Your task to perform on an android device: uninstall "Microsoft Outlook" Image 0: 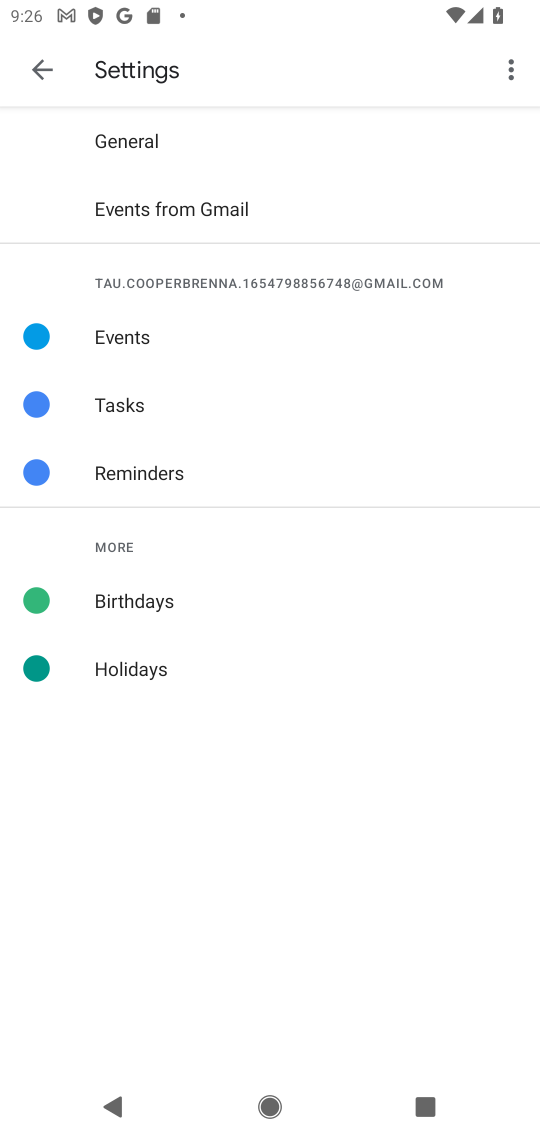
Step 0: press home button
Your task to perform on an android device: uninstall "Microsoft Outlook" Image 1: 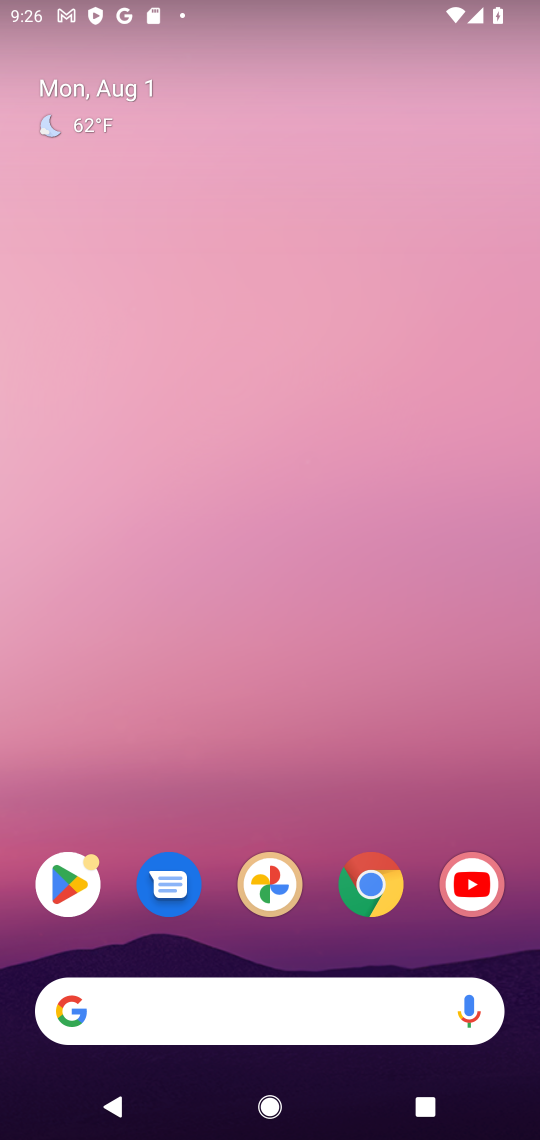
Step 1: click (53, 887)
Your task to perform on an android device: uninstall "Microsoft Outlook" Image 2: 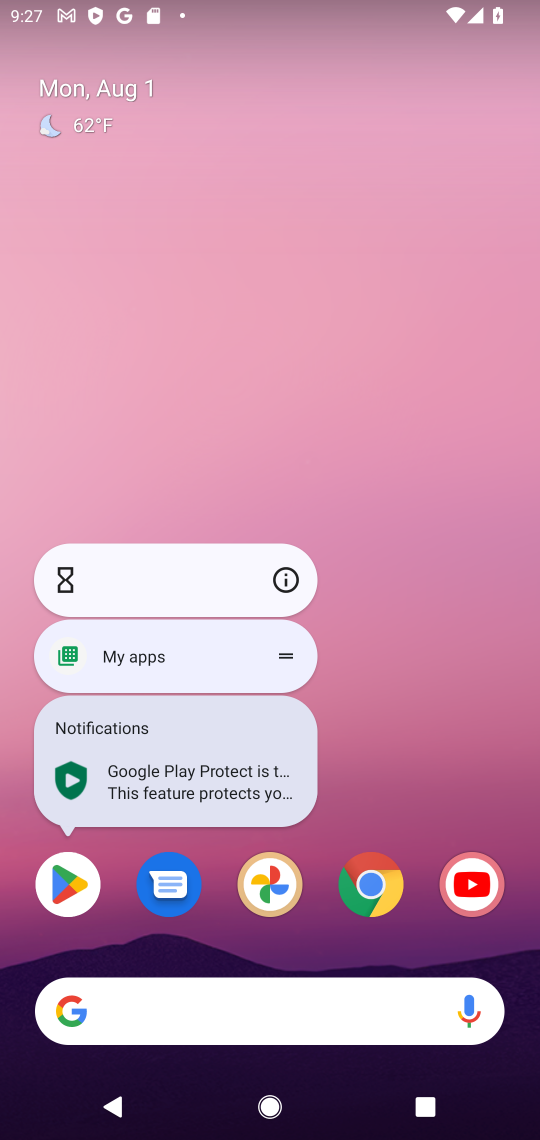
Step 2: click (53, 887)
Your task to perform on an android device: uninstall "Microsoft Outlook" Image 3: 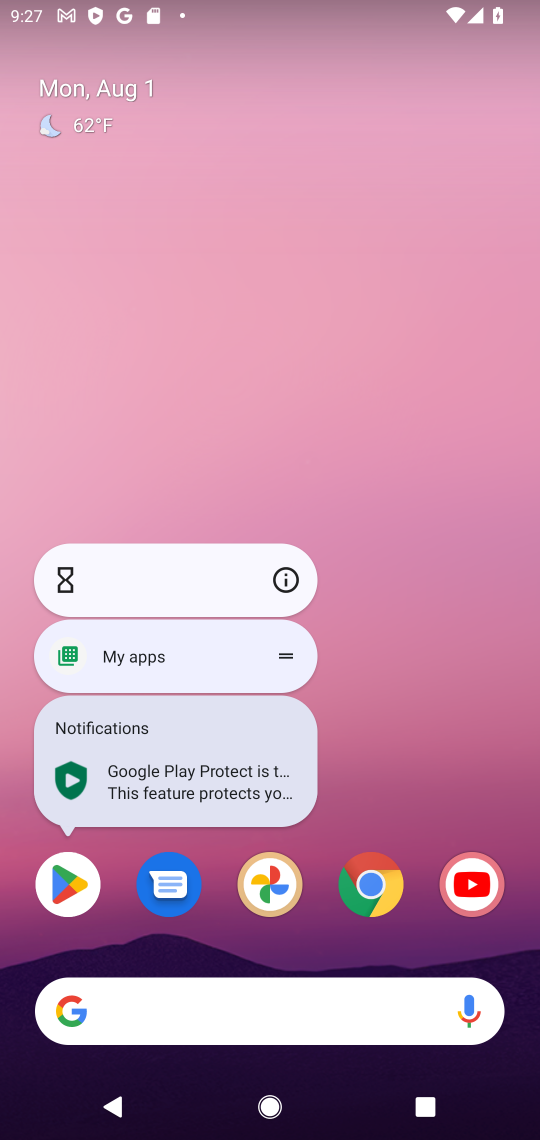
Step 3: click (53, 887)
Your task to perform on an android device: uninstall "Microsoft Outlook" Image 4: 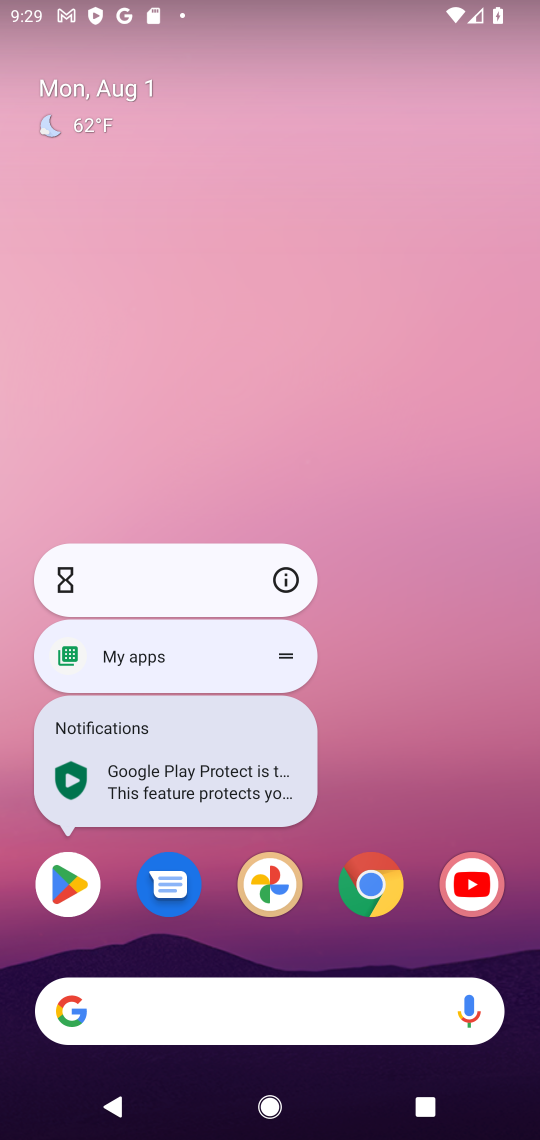
Step 4: click (71, 885)
Your task to perform on an android device: uninstall "Microsoft Outlook" Image 5: 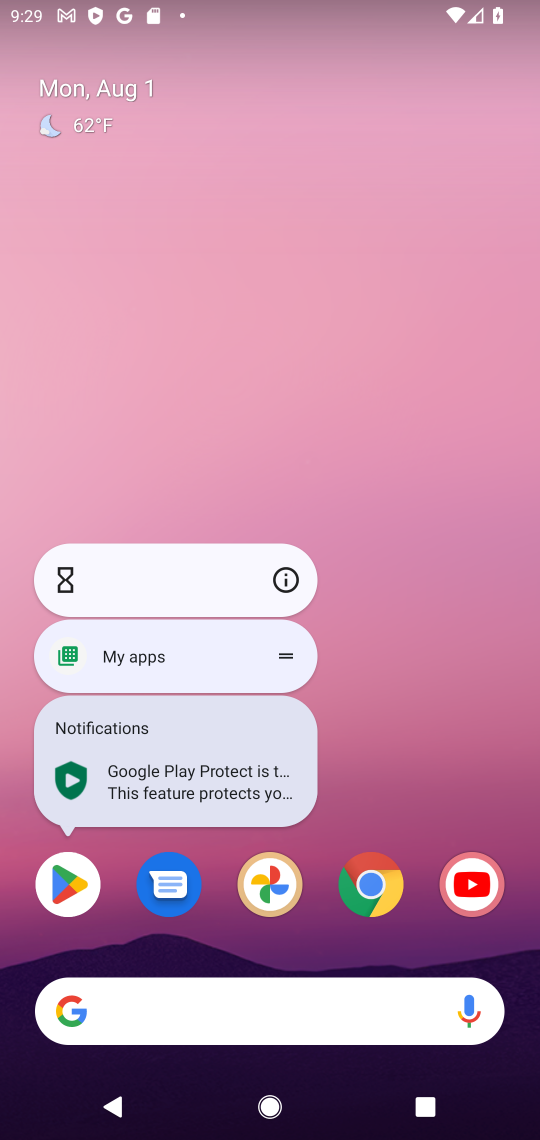
Step 5: click (71, 885)
Your task to perform on an android device: uninstall "Microsoft Outlook" Image 6: 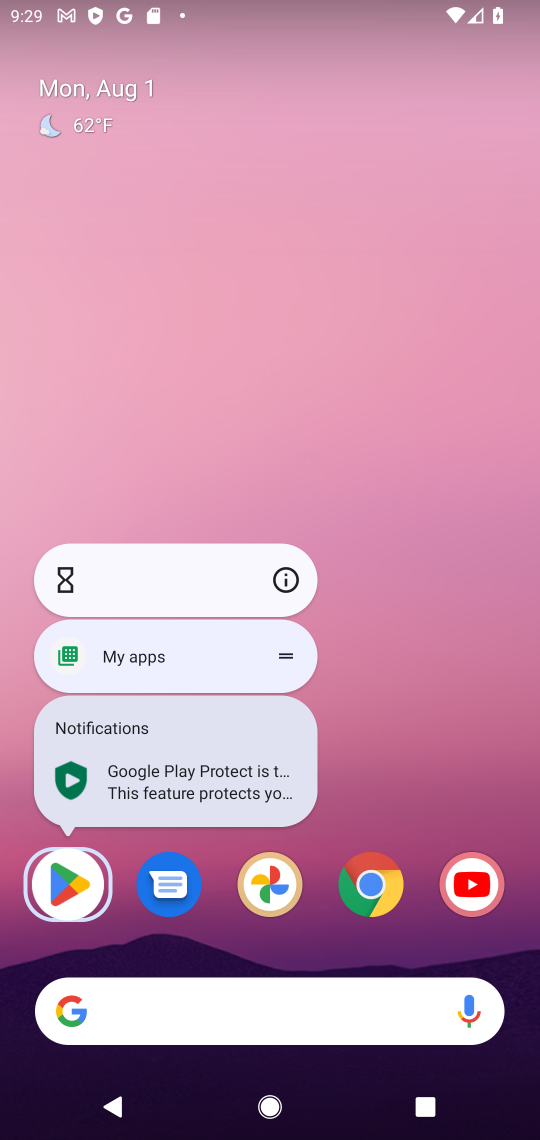
Step 6: click (71, 885)
Your task to perform on an android device: uninstall "Microsoft Outlook" Image 7: 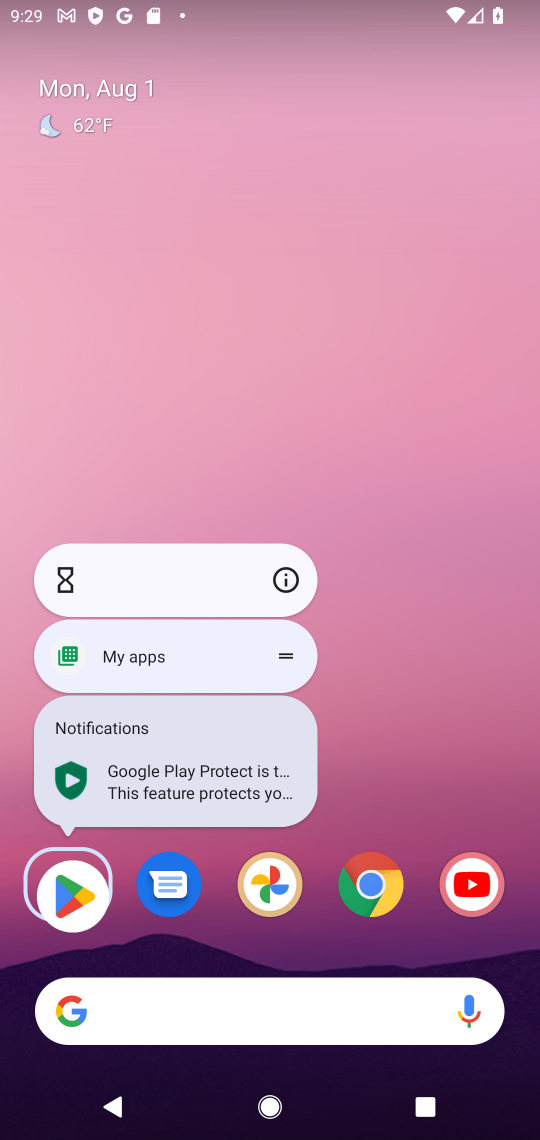
Step 7: click (76, 897)
Your task to perform on an android device: uninstall "Microsoft Outlook" Image 8: 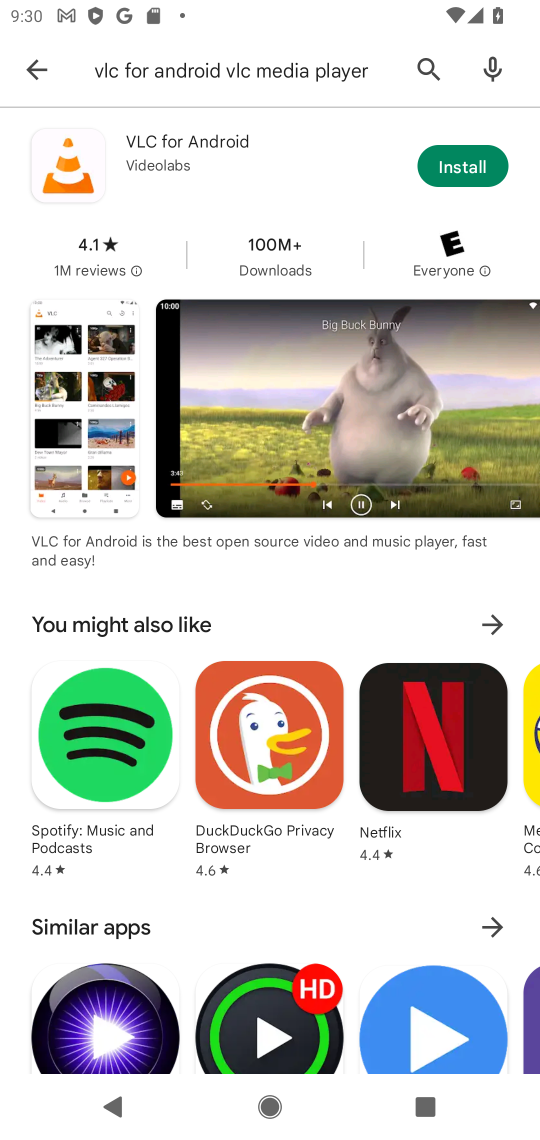
Step 8: click (430, 68)
Your task to perform on an android device: uninstall "Microsoft Outlook" Image 9: 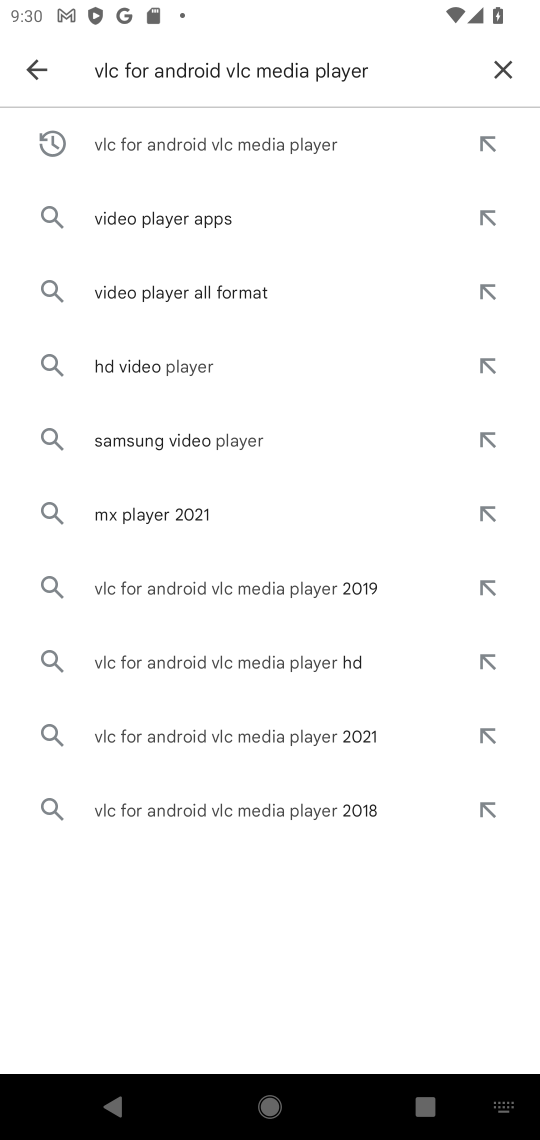
Step 9: click (533, 57)
Your task to perform on an android device: uninstall "Microsoft Outlook" Image 10: 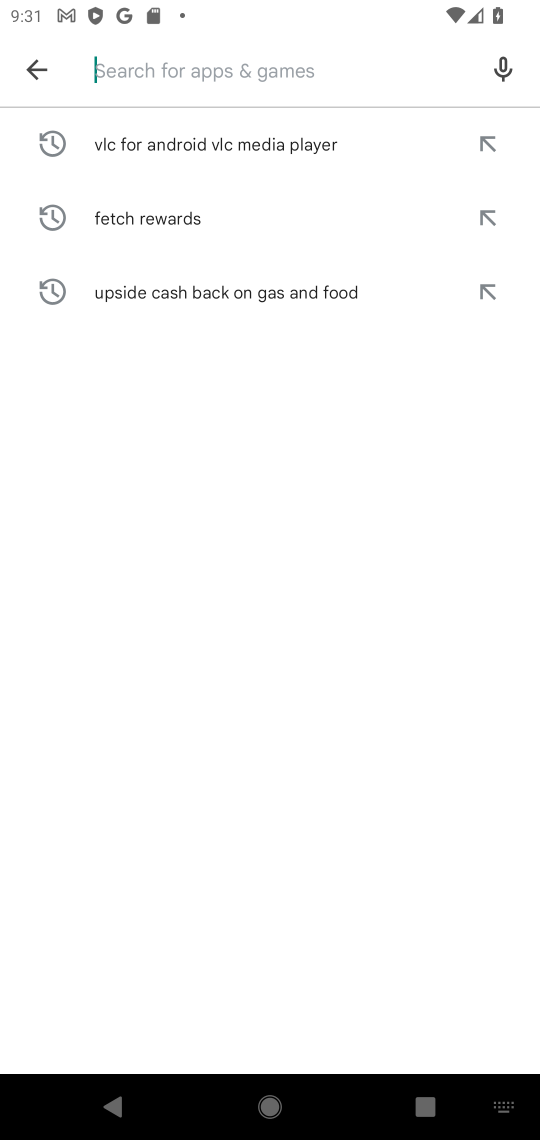
Step 10: type "microsoft "
Your task to perform on an android device: uninstall "Microsoft Outlook" Image 11: 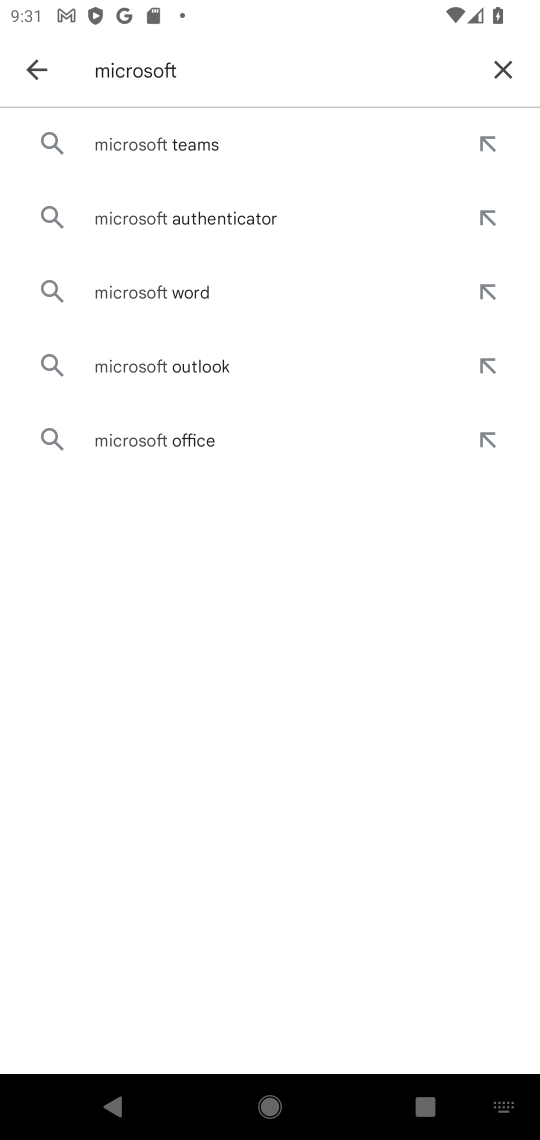
Step 11: click (218, 366)
Your task to perform on an android device: uninstall "Microsoft Outlook" Image 12: 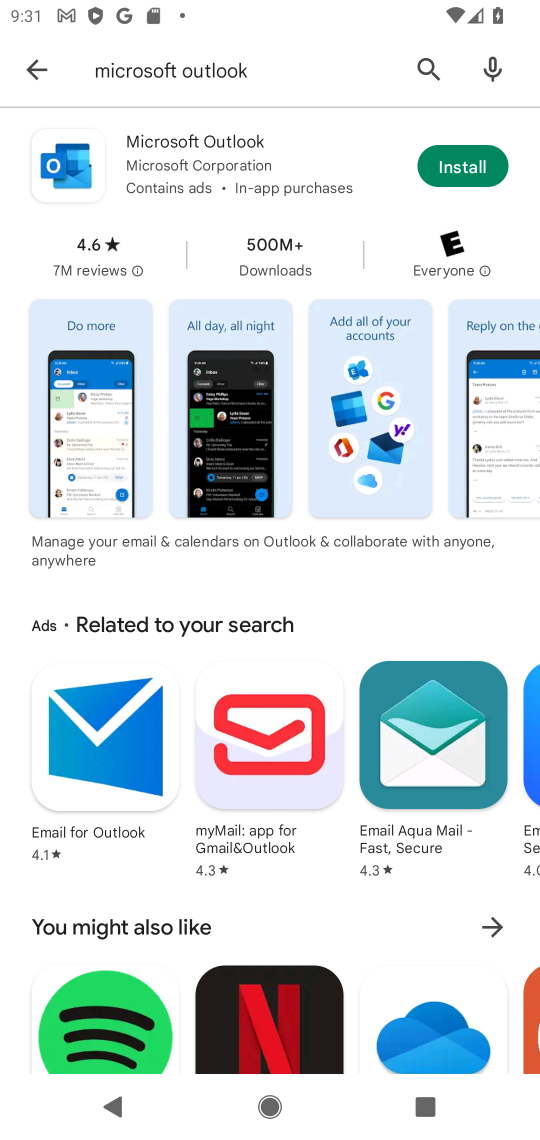
Step 12: task complete